Your task to perform on an android device: Show me popular games on the Play Store Image 0: 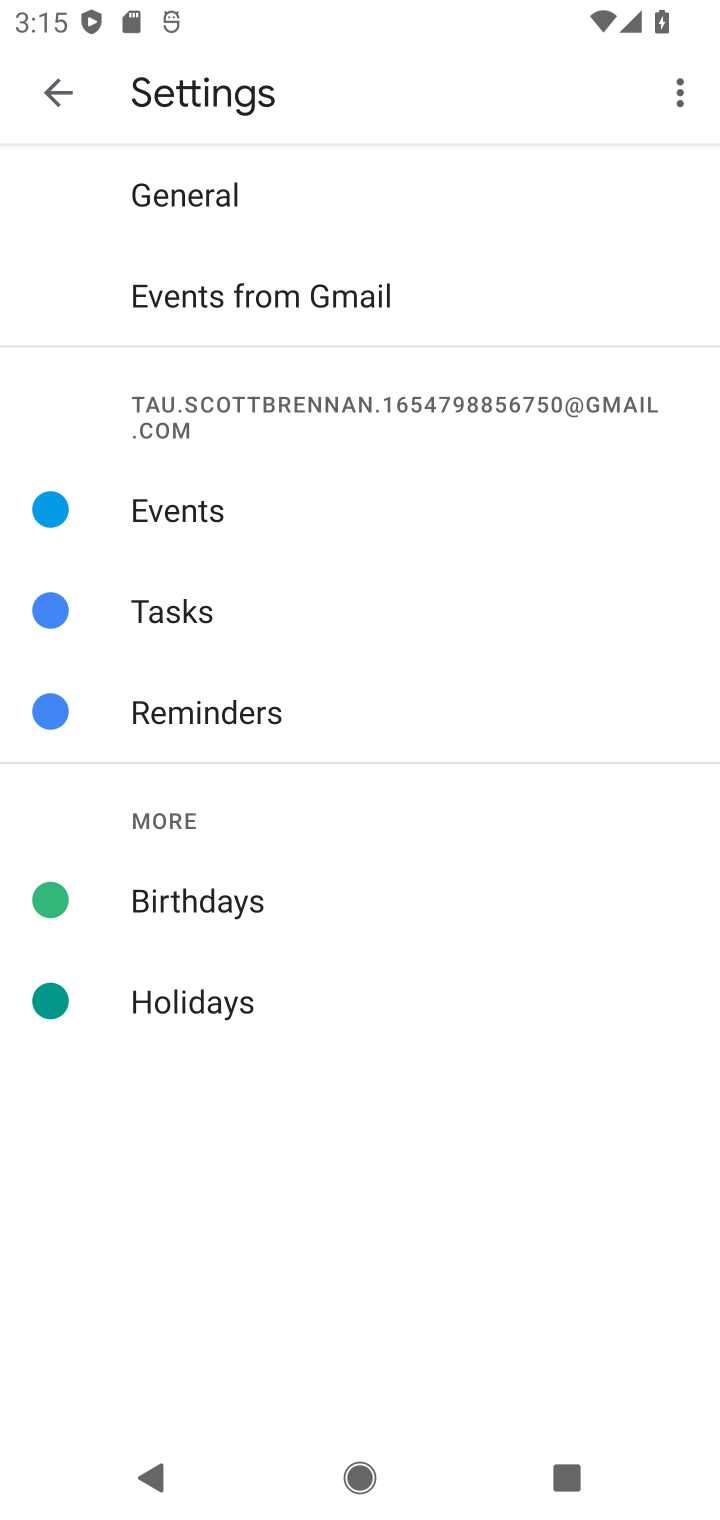
Step 0: press home button
Your task to perform on an android device: Show me popular games on the Play Store Image 1: 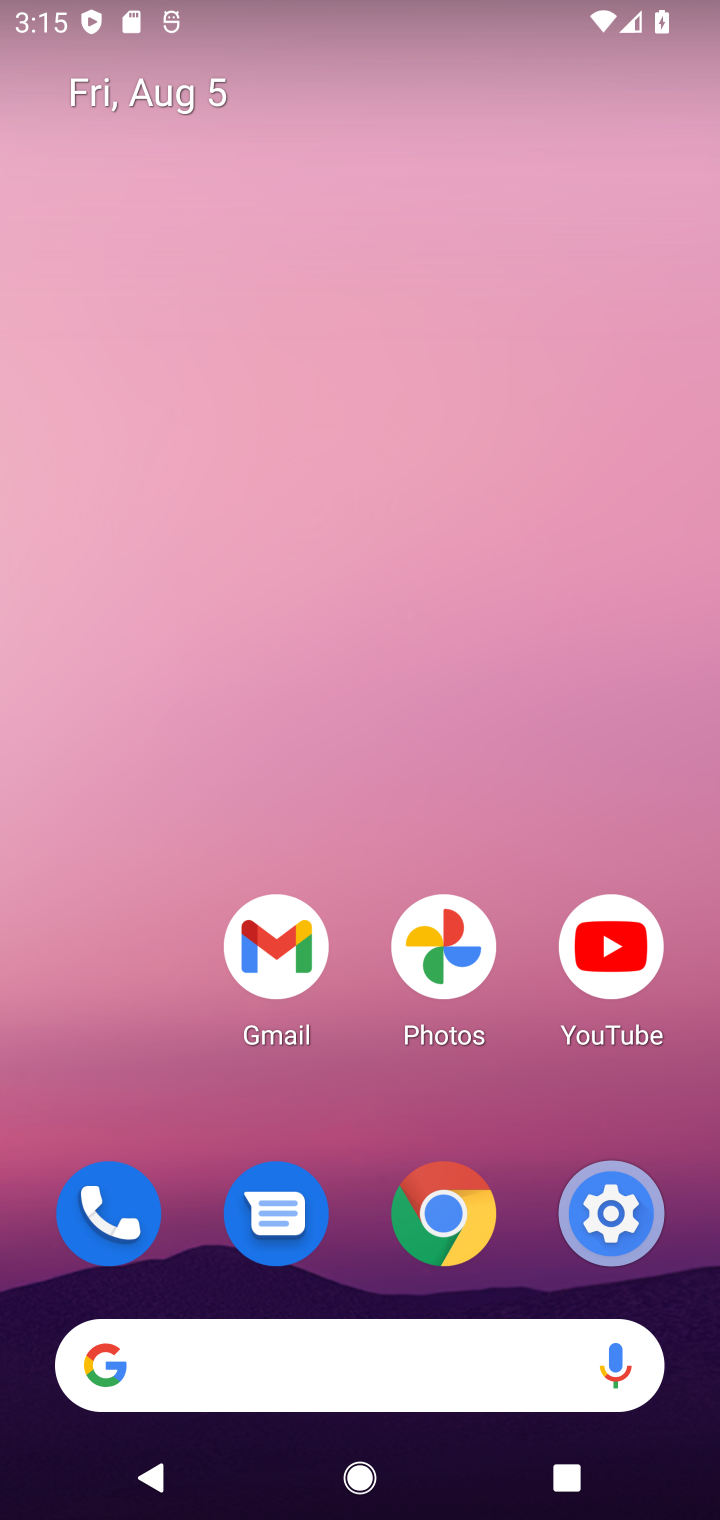
Step 1: drag from (140, 1006) to (231, 98)
Your task to perform on an android device: Show me popular games on the Play Store Image 2: 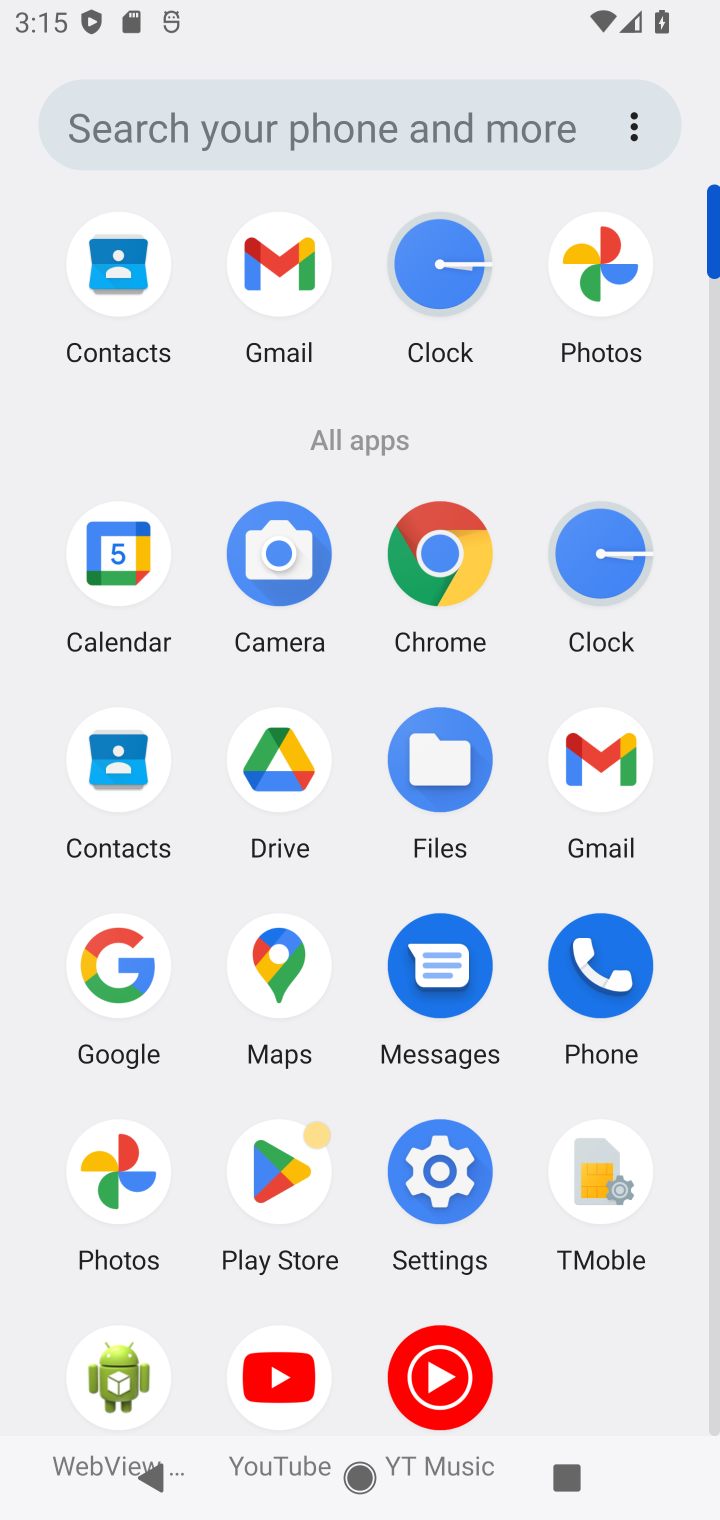
Step 2: click (305, 1170)
Your task to perform on an android device: Show me popular games on the Play Store Image 3: 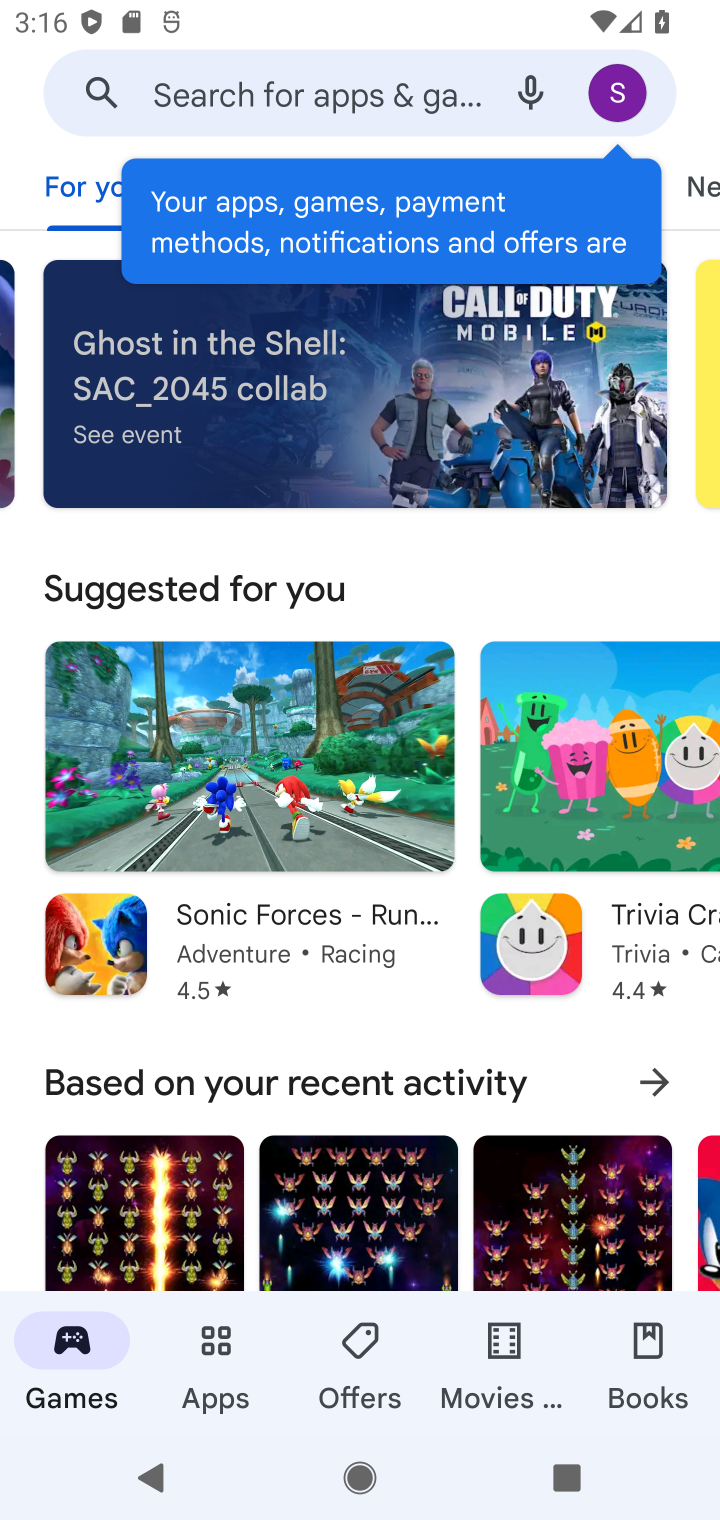
Step 3: task complete